Your task to perform on an android device: What's the weather? Image 0: 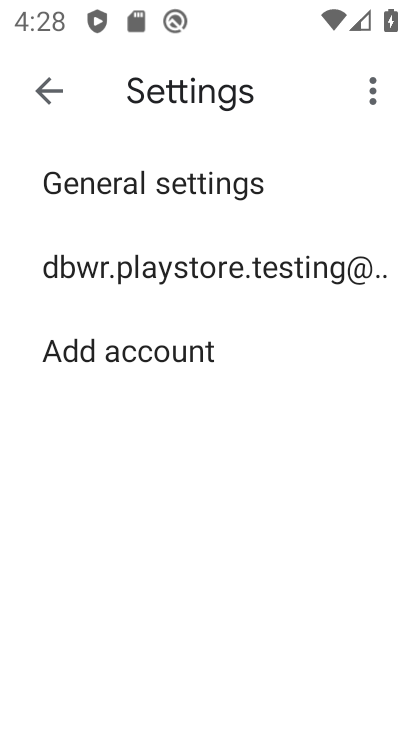
Step 0: press home button
Your task to perform on an android device: What's the weather? Image 1: 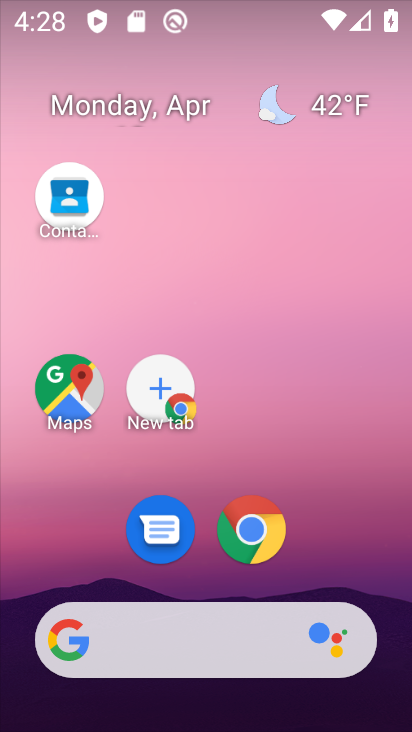
Step 1: click (301, 111)
Your task to perform on an android device: What's the weather? Image 2: 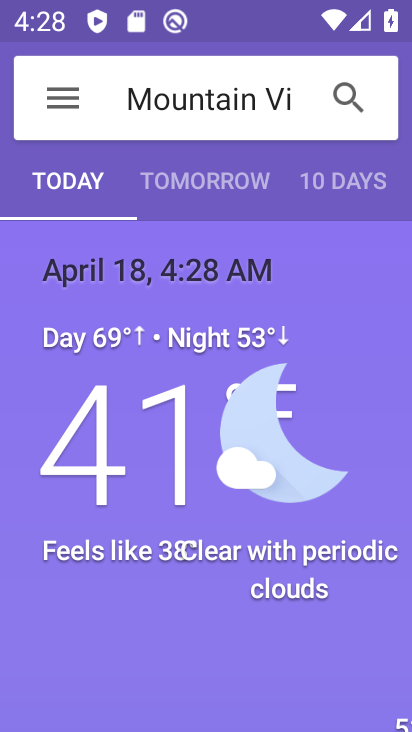
Step 2: task complete